Your task to perform on an android device: Play the last video I watched on Youtube Image 0: 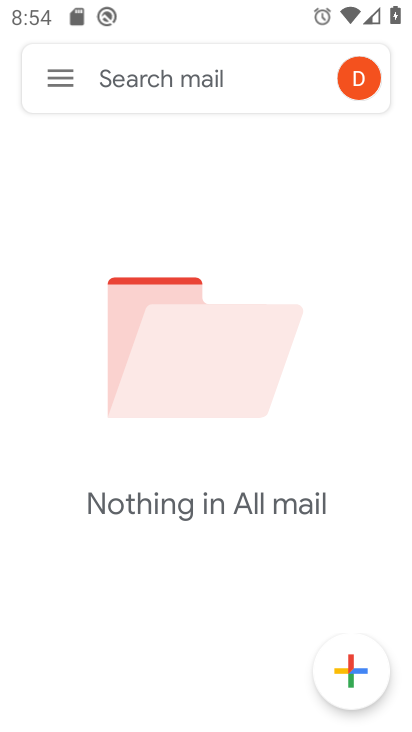
Step 0: press home button
Your task to perform on an android device: Play the last video I watched on Youtube Image 1: 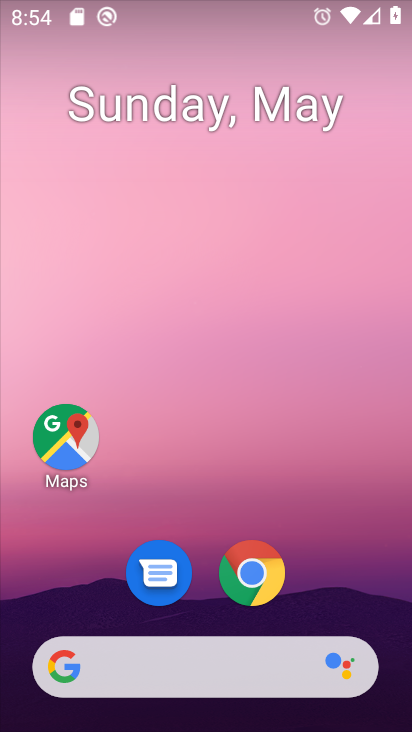
Step 1: drag from (206, 485) to (254, 3)
Your task to perform on an android device: Play the last video I watched on Youtube Image 2: 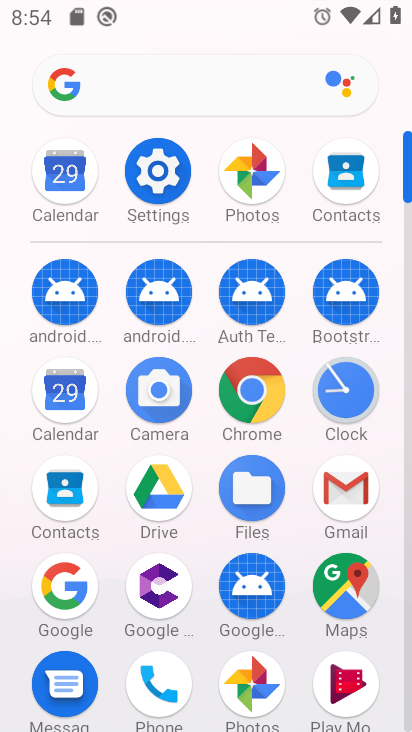
Step 2: drag from (210, 632) to (230, 204)
Your task to perform on an android device: Play the last video I watched on Youtube Image 3: 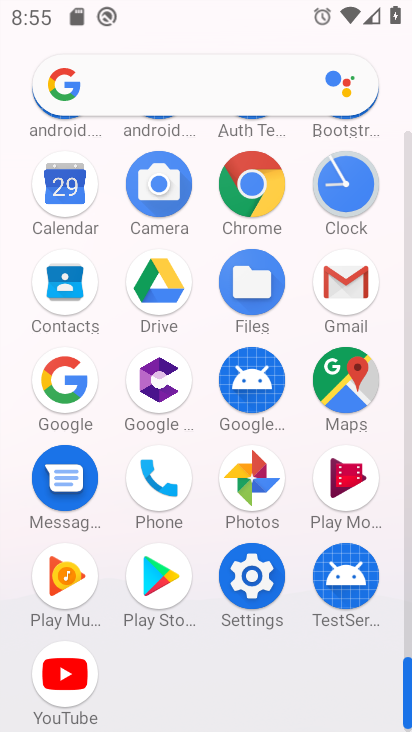
Step 3: click (69, 665)
Your task to perform on an android device: Play the last video I watched on Youtube Image 4: 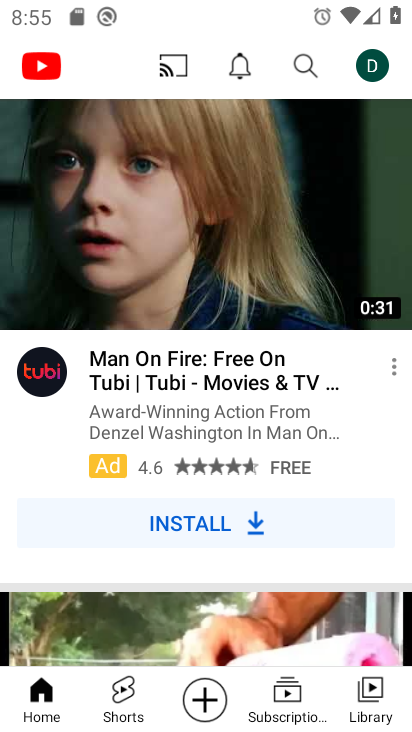
Step 4: click (373, 682)
Your task to perform on an android device: Play the last video I watched on Youtube Image 5: 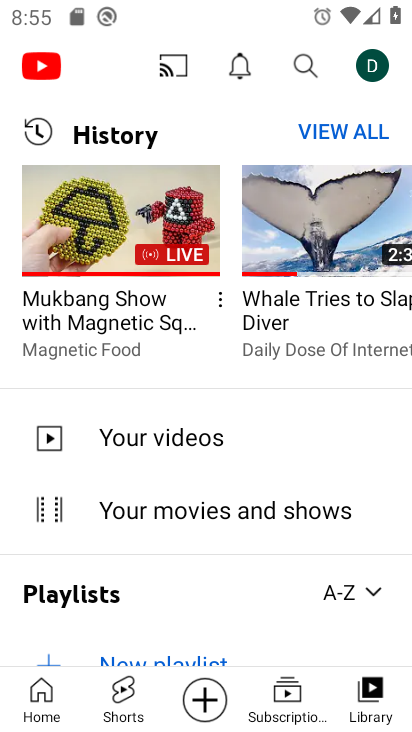
Step 5: click (116, 125)
Your task to perform on an android device: Play the last video I watched on Youtube Image 6: 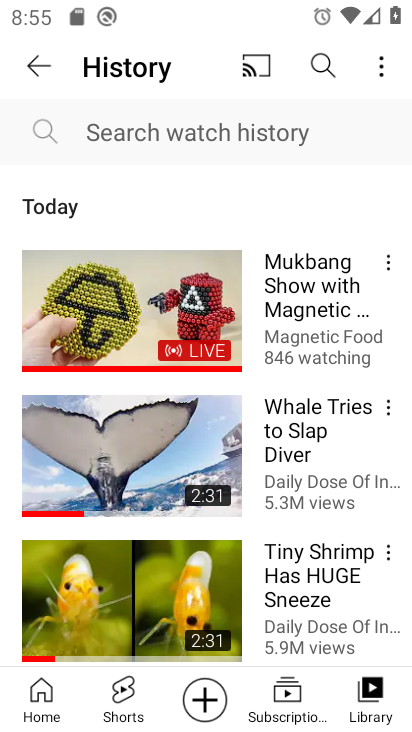
Step 6: click (136, 300)
Your task to perform on an android device: Play the last video I watched on Youtube Image 7: 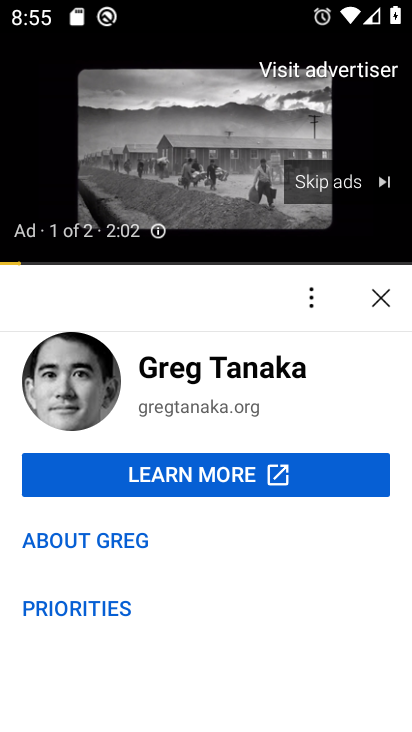
Step 7: click (346, 180)
Your task to perform on an android device: Play the last video I watched on Youtube Image 8: 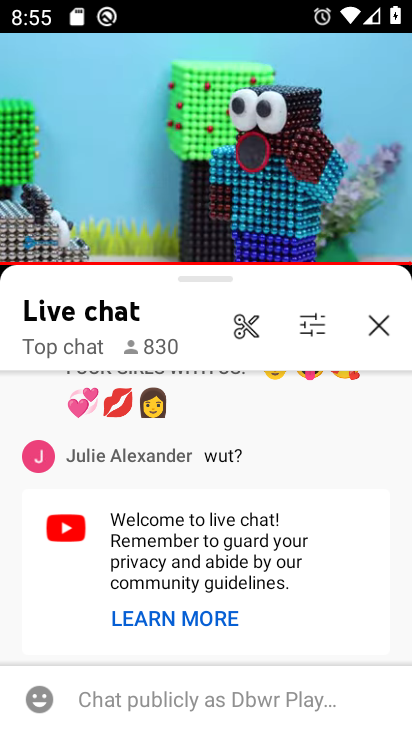
Step 8: task complete